Your task to perform on an android device: change the clock display to digital Image 0: 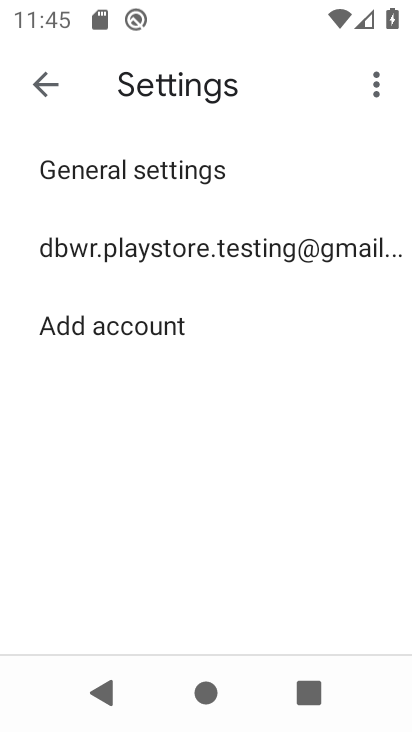
Step 0: press home button
Your task to perform on an android device: change the clock display to digital Image 1: 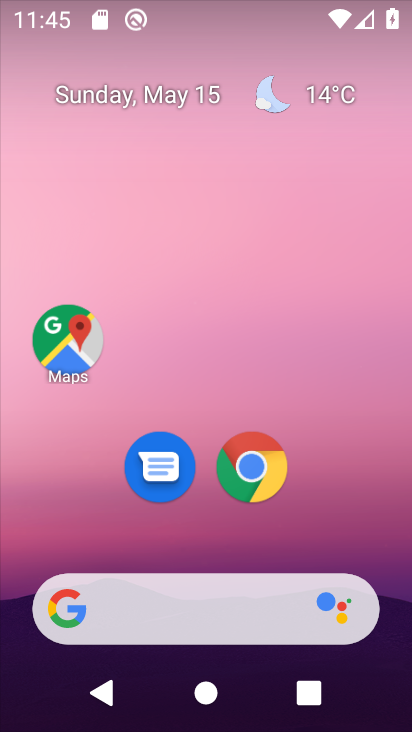
Step 1: drag from (197, 547) to (278, 3)
Your task to perform on an android device: change the clock display to digital Image 2: 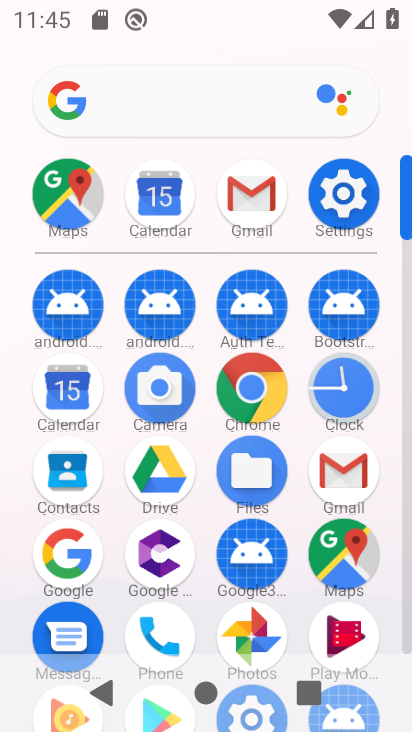
Step 2: click (351, 378)
Your task to perform on an android device: change the clock display to digital Image 3: 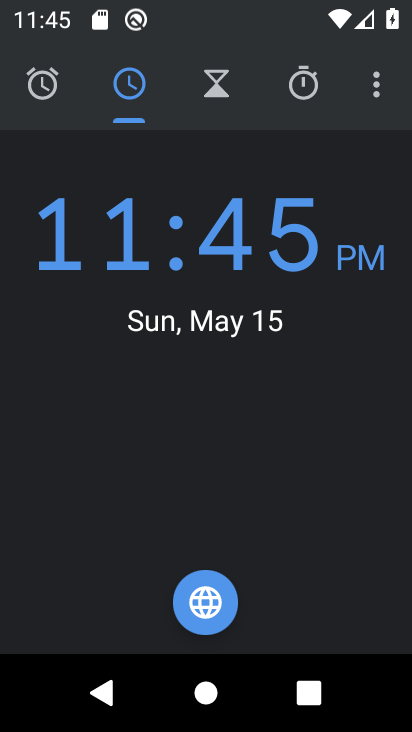
Step 3: click (369, 84)
Your task to perform on an android device: change the clock display to digital Image 4: 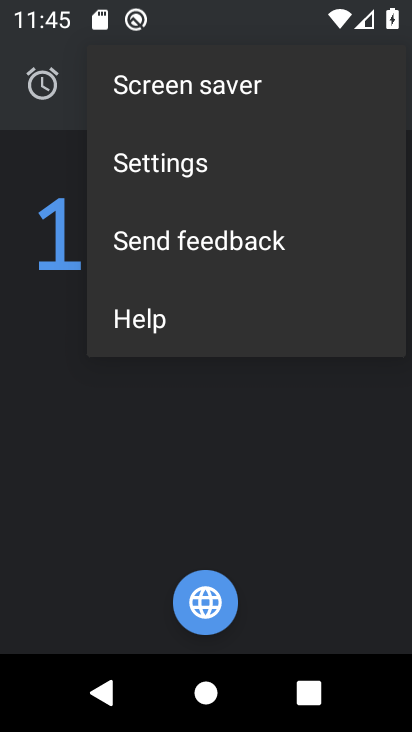
Step 4: click (219, 153)
Your task to perform on an android device: change the clock display to digital Image 5: 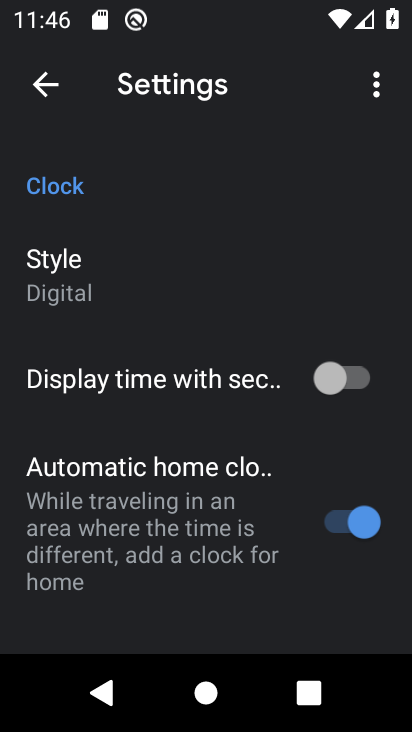
Step 5: task complete